Your task to perform on an android device: What's on my calendar today? Image 0: 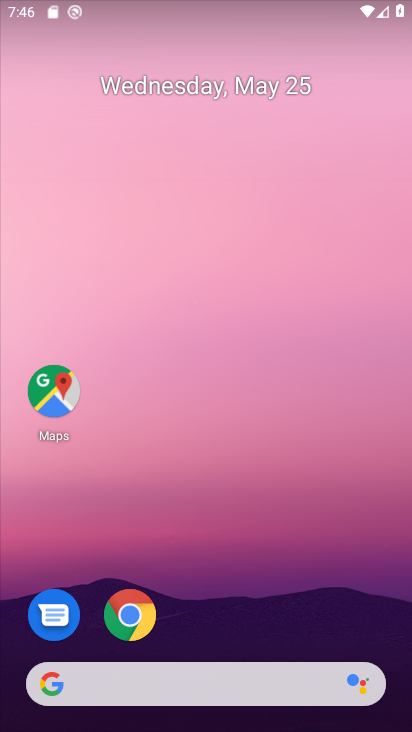
Step 0: drag from (281, 601) to (277, 30)
Your task to perform on an android device: What's on my calendar today? Image 1: 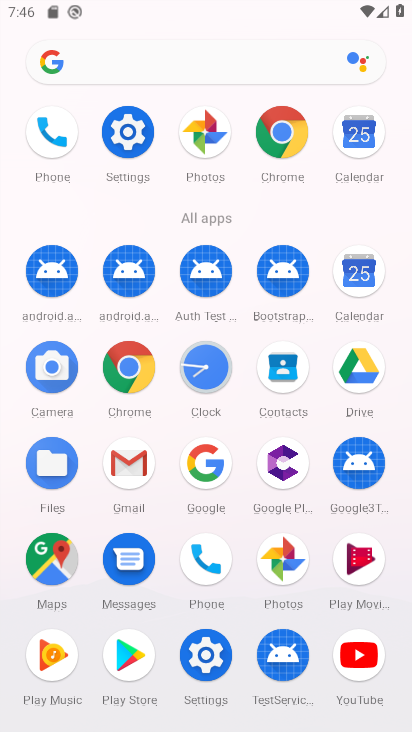
Step 1: click (358, 267)
Your task to perform on an android device: What's on my calendar today? Image 2: 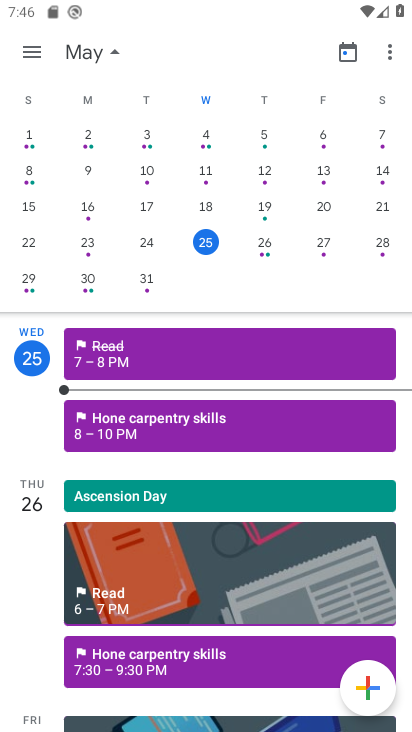
Step 2: click (208, 237)
Your task to perform on an android device: What's on my calendar today? Image 3: 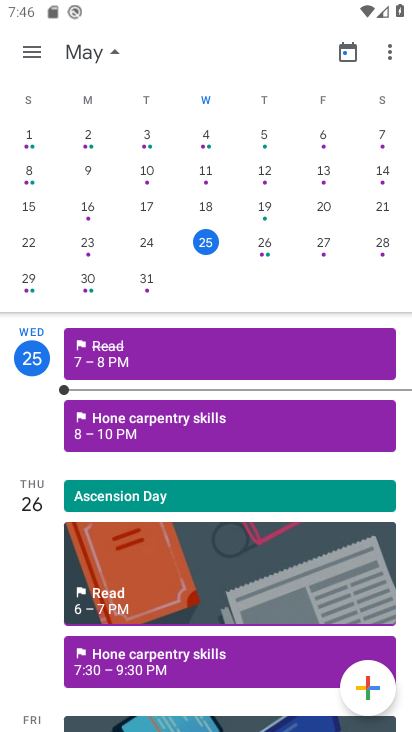
Step 3: click (208, 237)
Your task to perform on an android device: What's on my calendar today? Image 4: 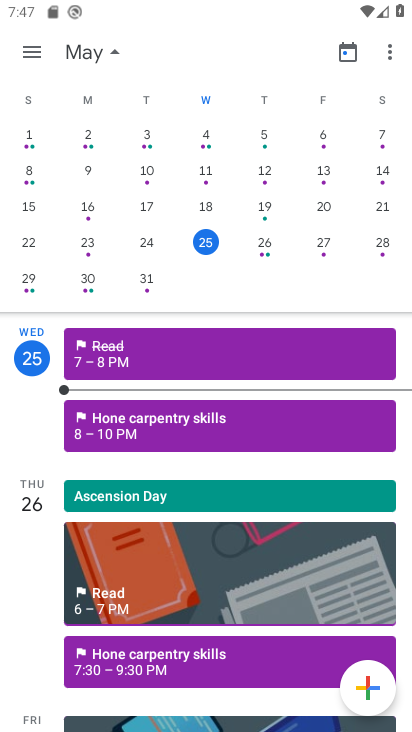
Step 4: click (202, 241)
Your task to perform on an android device: What's on my calendar today? Image 5: 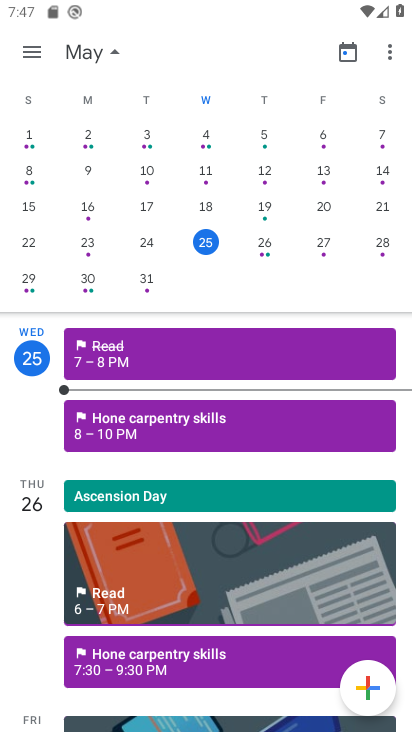
Step 5: click (35, 351)
Your task to perform on an android device: What's on my calendar today? Image 6: 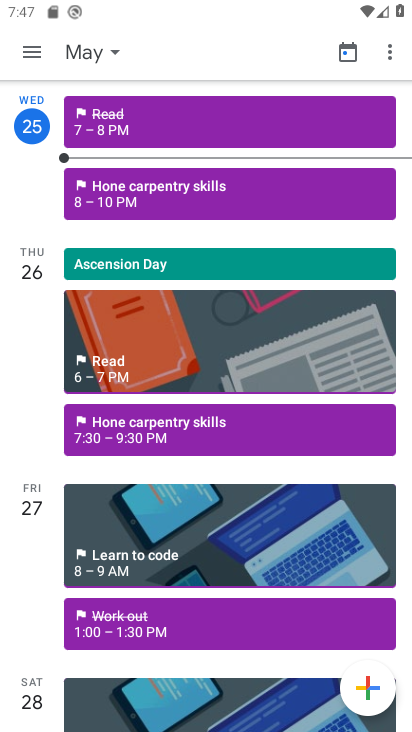
Step 6: click (43, 50)
Your task to perform on an android device: What's on my calendar today? Image 7: 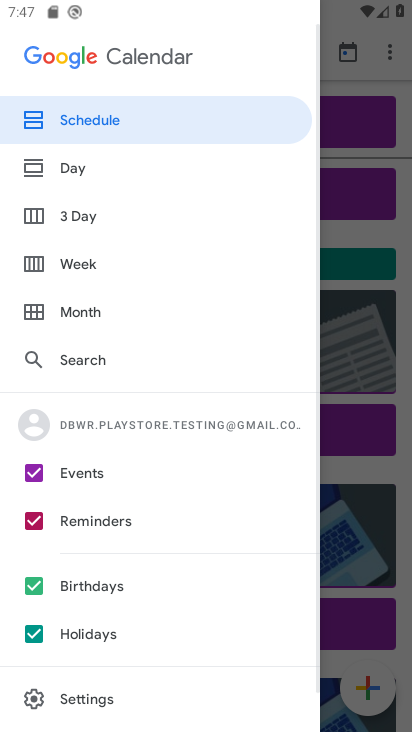
Step 7: click (90, 165)
Your task to perform on an android device: What's on my calendar today? Image 8: 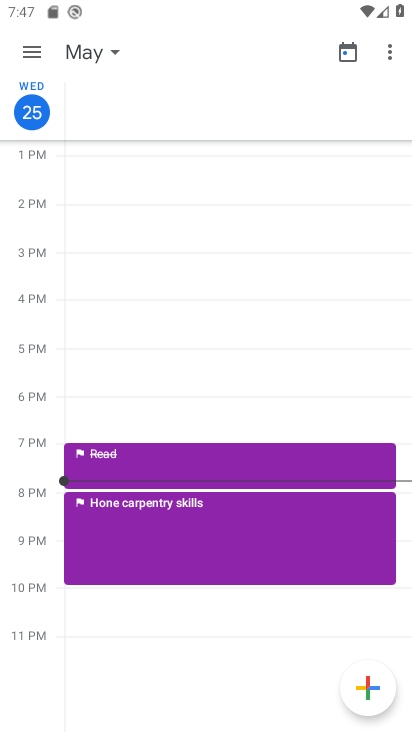
Step 8: task complete